Your task to perform on an android device: change the clock style Image 0: 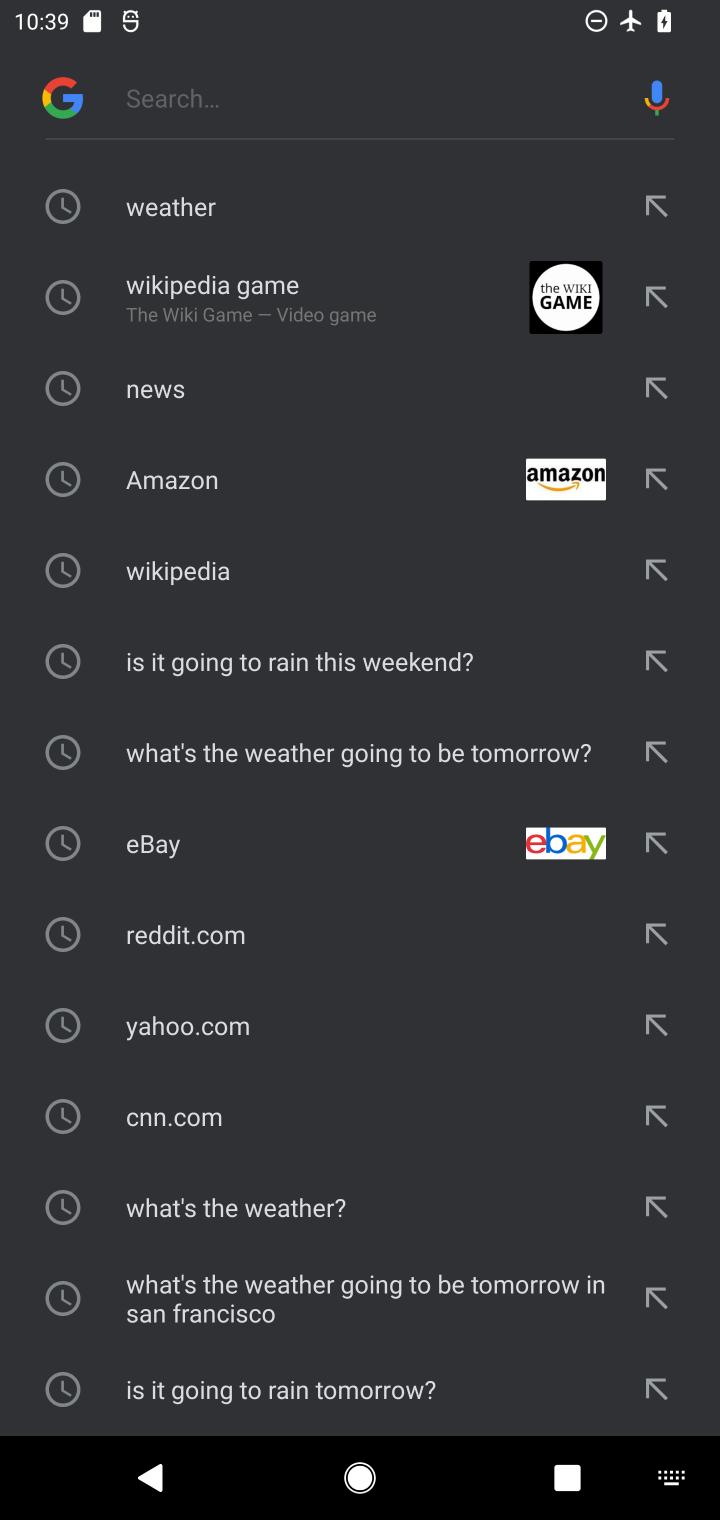
Step 0: press home button
Your task to perform on an android device: change the clock style Image 1: 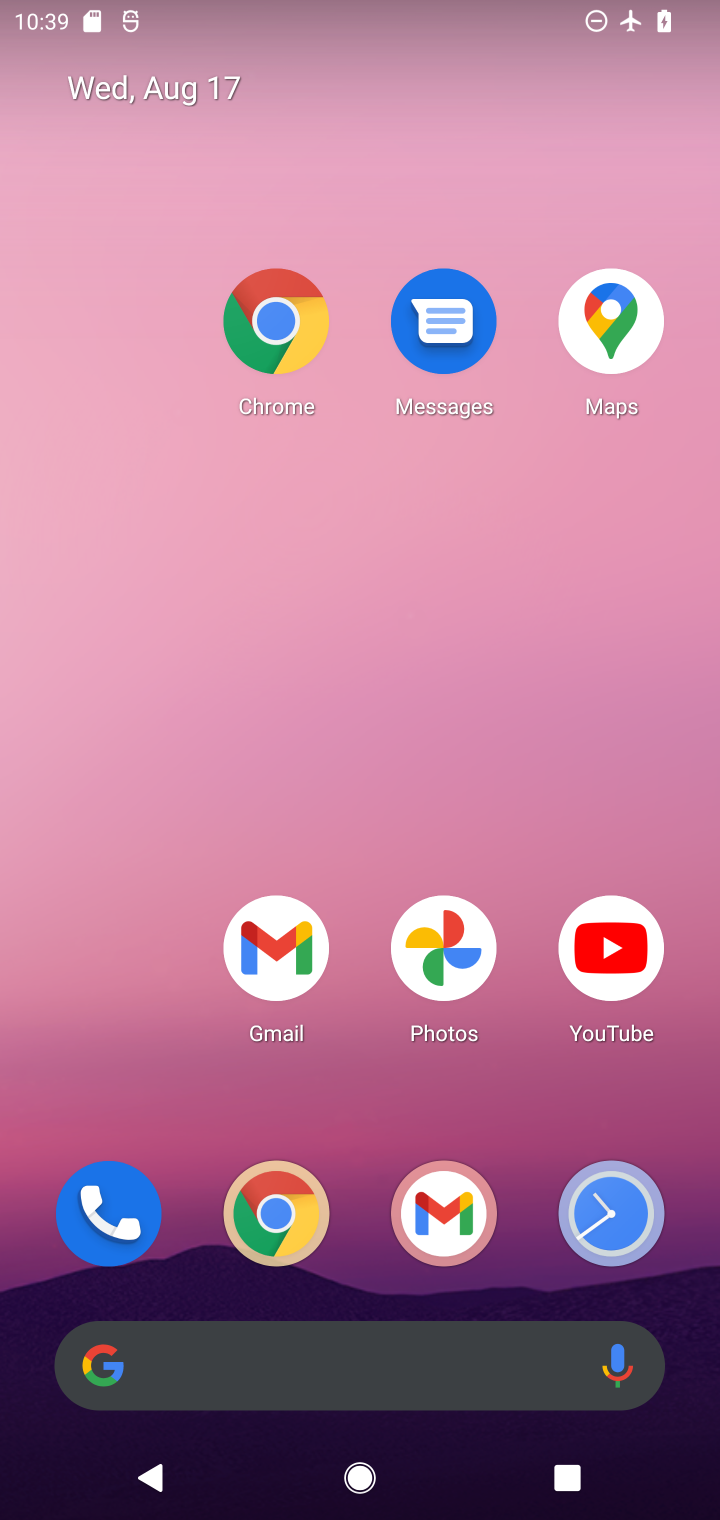
Step 1: click (611, 1234)
Your task to perform on an android device: change the clock style Image 2: 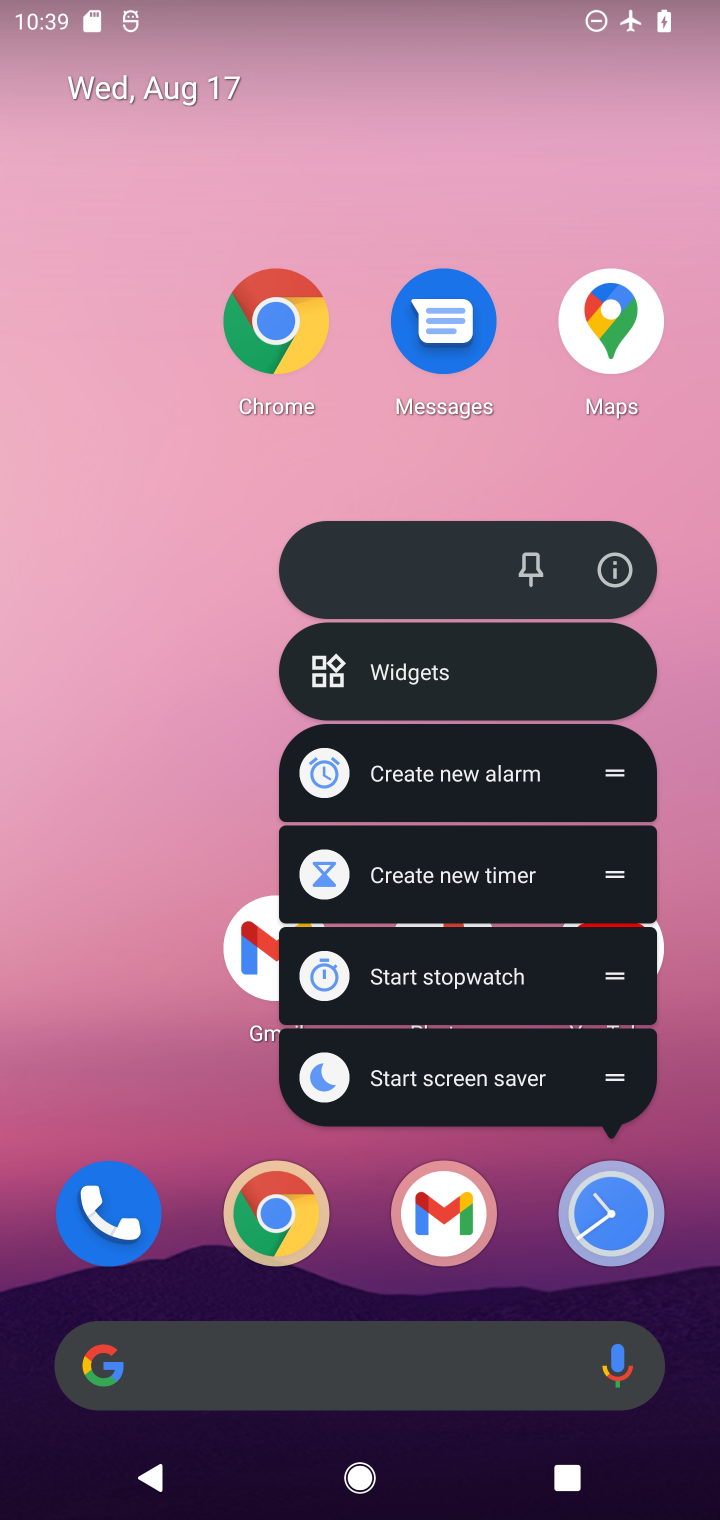
Step 2: click (594, 1181)
Your task to perform on an android device: change the clock style Image 3: 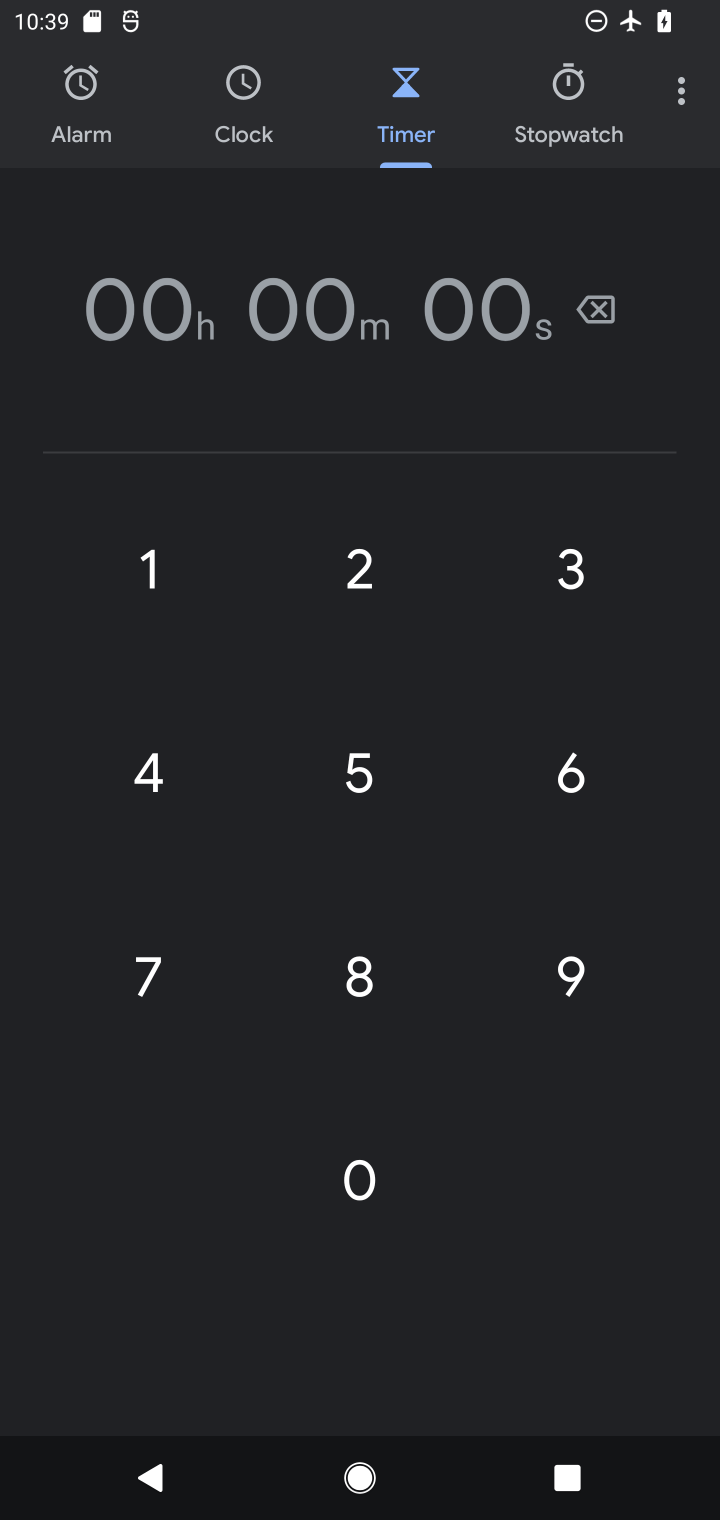
Step 3: task complete